Your task to perform on an android device: Open Maps and search for coffee Image 0: 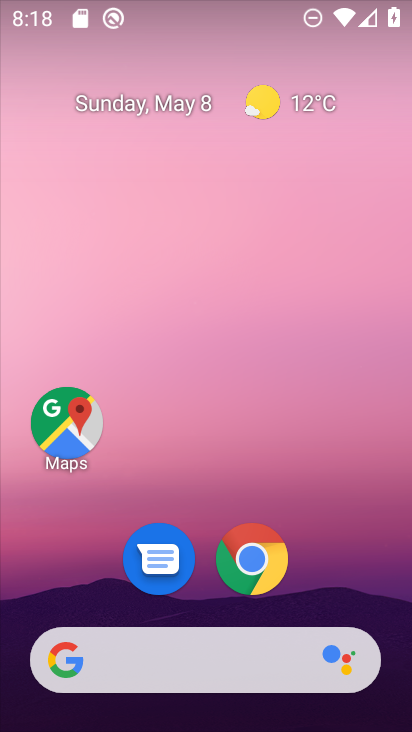
Step 0: click (67, 428)
Your task to perform on an android device: Open Maps and search for coffee Image 1: 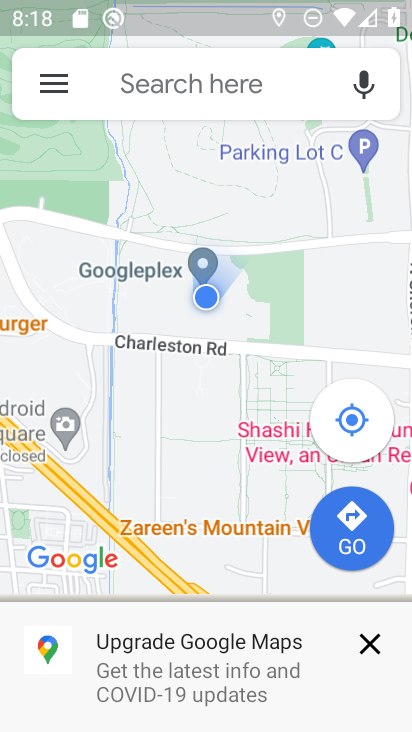
Step 1: click (99, 84)
Your task to perform on an android device: Open Maps and search for coffee Image 2: 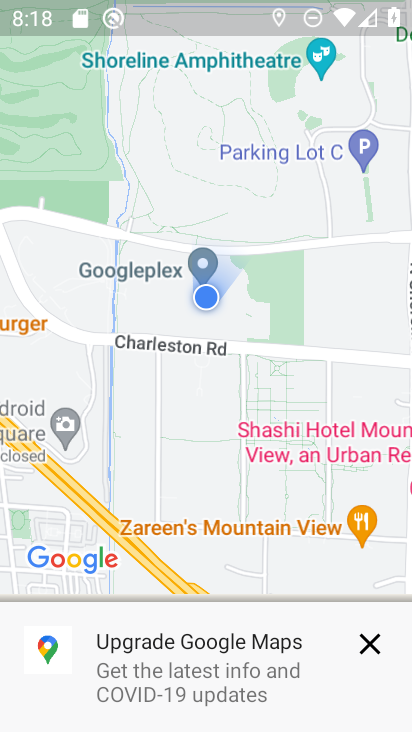
Step 2: click (127, 96)
Your task to perform on an android device: Open Maps and search for coffee Image 3: 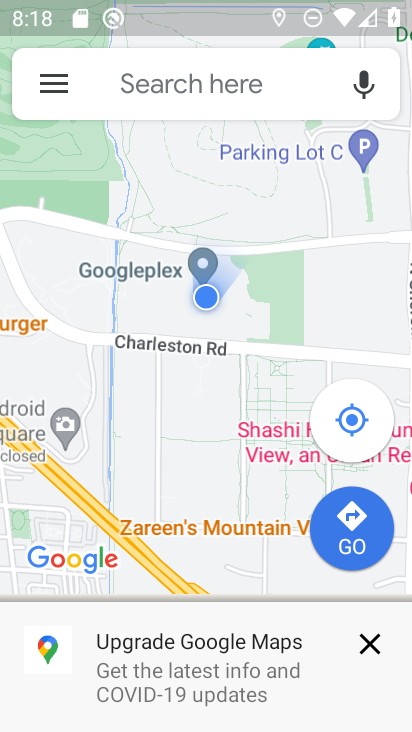
Step 3: click (130, 95)
Your task to perform on an android device: Open Maps and search for coffee Image 4: 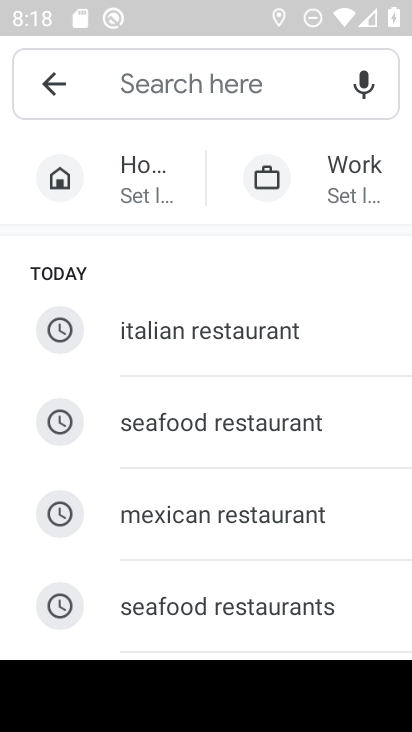
Step 4: type "coffee"
Your task to perform on an android device: Open Maps and search for coffee Image 5: 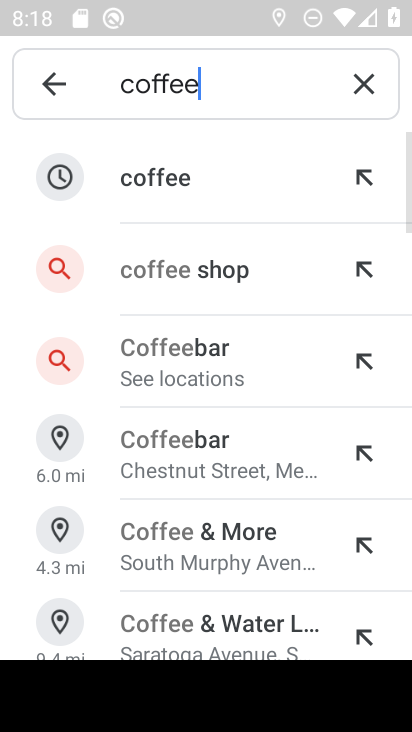
Step 5: click (149, 181)
Your task to perform on an android device: Open Maps and search for coffee Image 6: 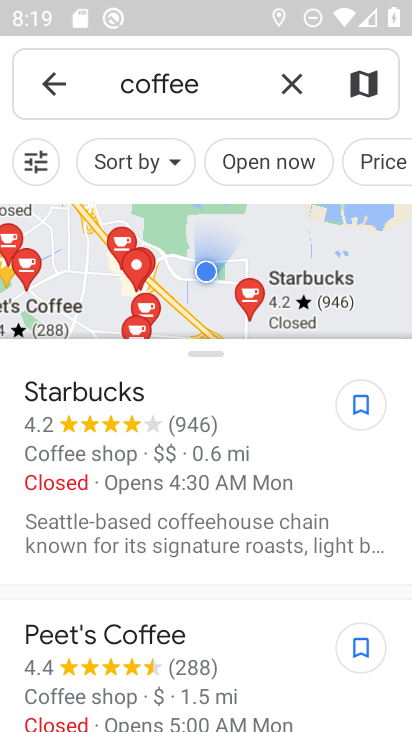
Step 6: task complete